Your task to perform on an android device: open sync settings in chrome Image 0: 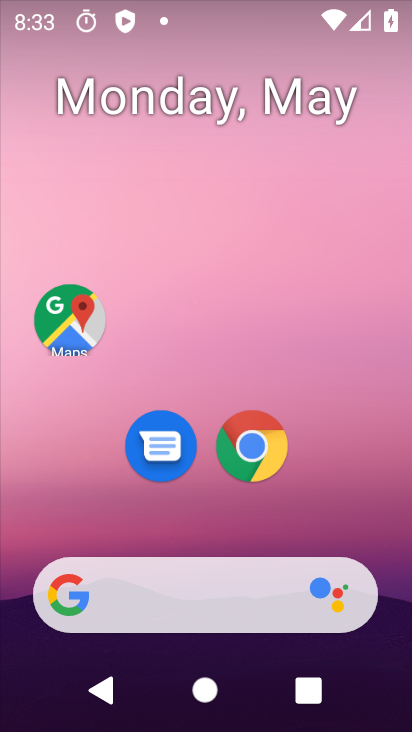
Step 0: click (378, 481)
Your task to perform on an android device: open sync settings in chrome Image 1: 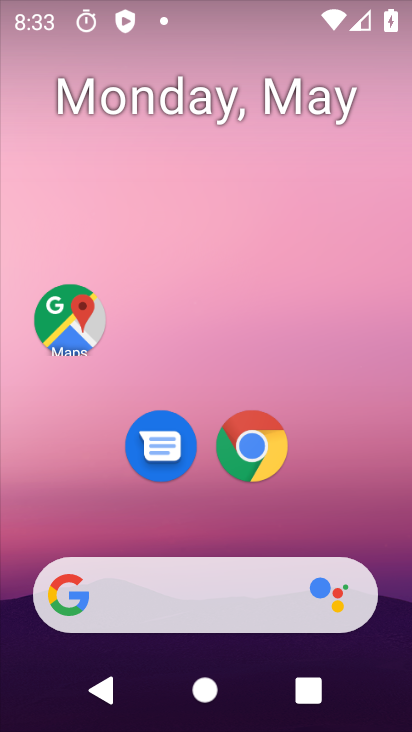
Step 1: click (252, 451)
Your task to perform on an android device: open sync settings in chrome Image 2: 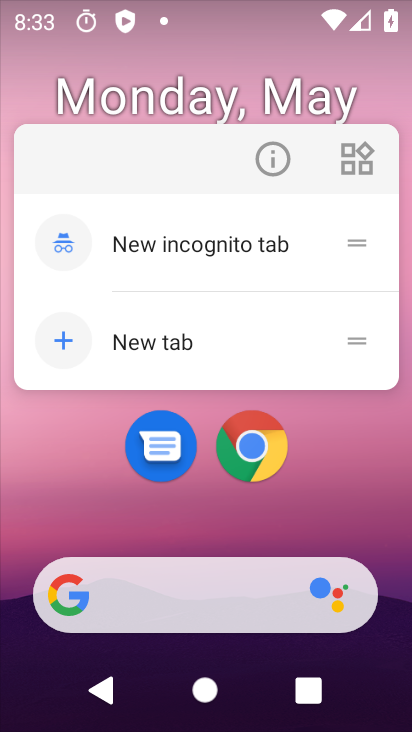
Step 2: click (260, 445)
Your task to perform on an android device: open sync settings in chrome Image 3: 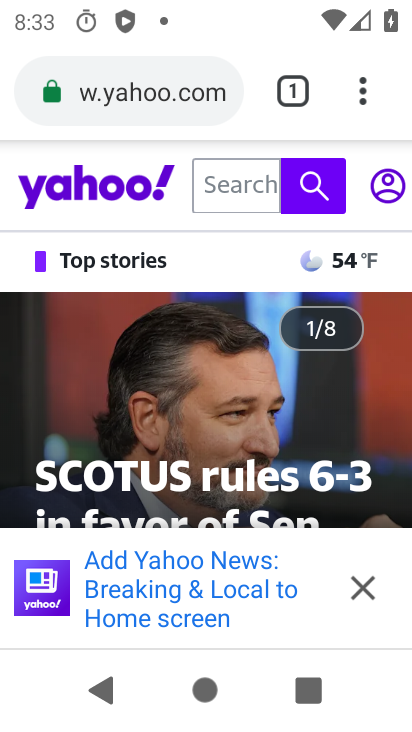
Step 3: click (369, 98)
Your task to perform on an android device: open sync settings in chrome Image 4: 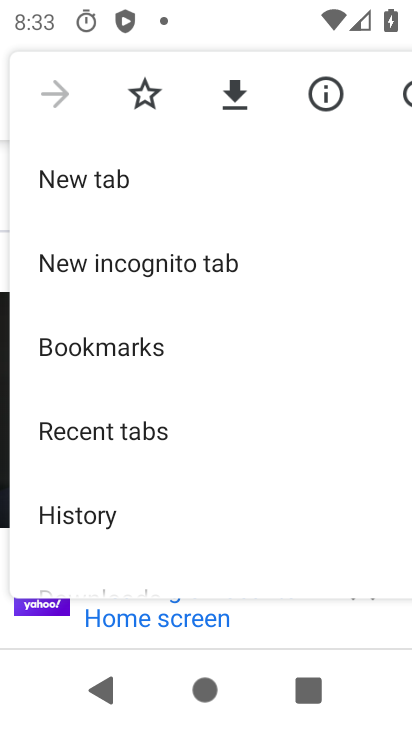
Step 4: drag from (216, 482) to (231, 71)
Your task to perform on an android device: open sync settings in chrome Image 5: 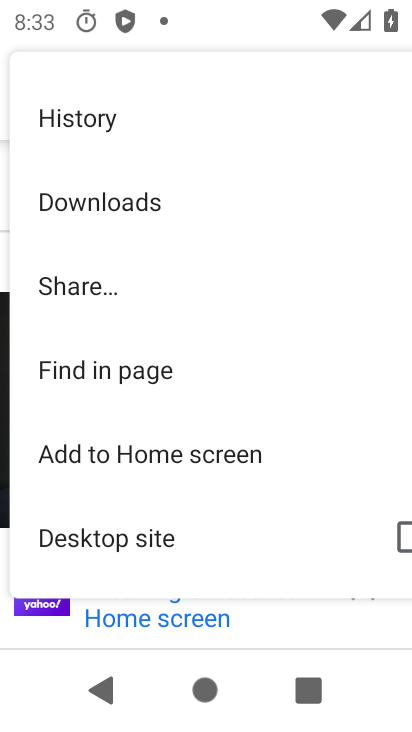
Step 5: drag from (122, 495) to (203, 109)
Your task to perform on an android device: open sync settings in chrome Image 6: 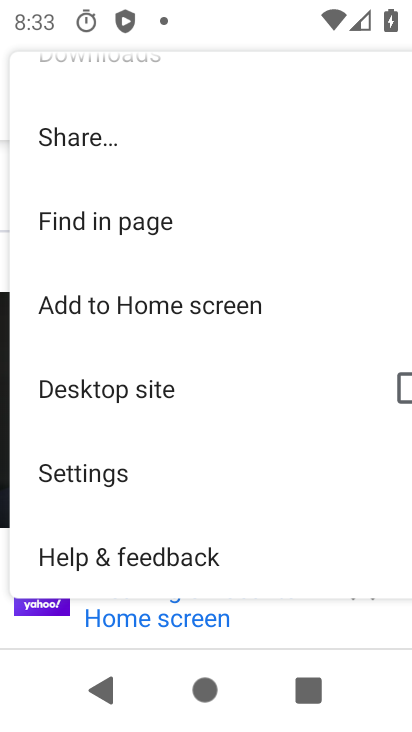
Step 6: click (77, 471)
Your task to perform on an android device: open sync settings in chrome Image 7: 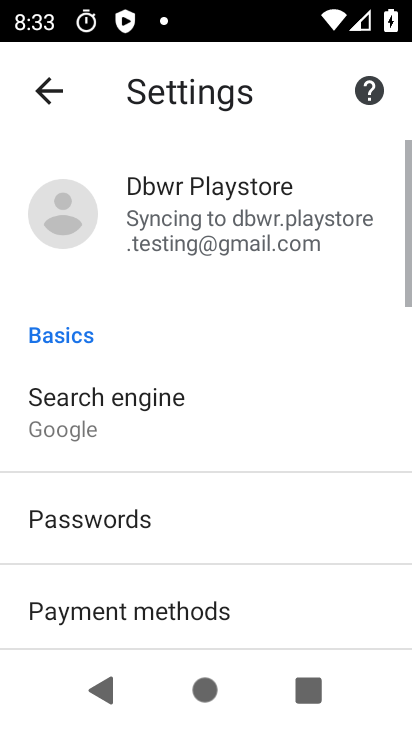
Step 7: click (158, 230)
Your task to perform on an android device: open sync settings in chrome Image 8: 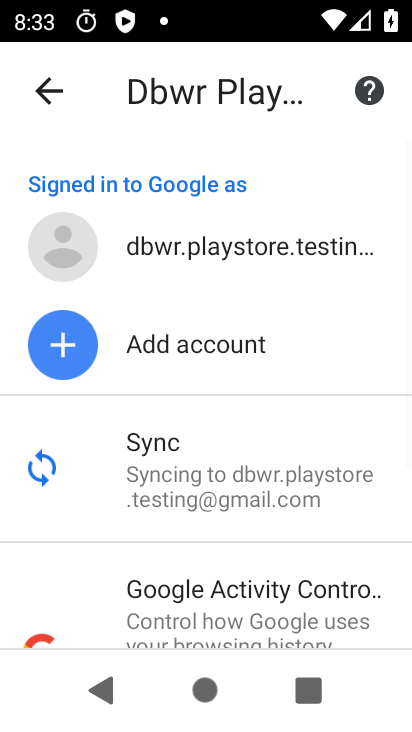
Step 8: click (153, 471)
Your task to perform on an android device: open sync settings in chrome Image 9: 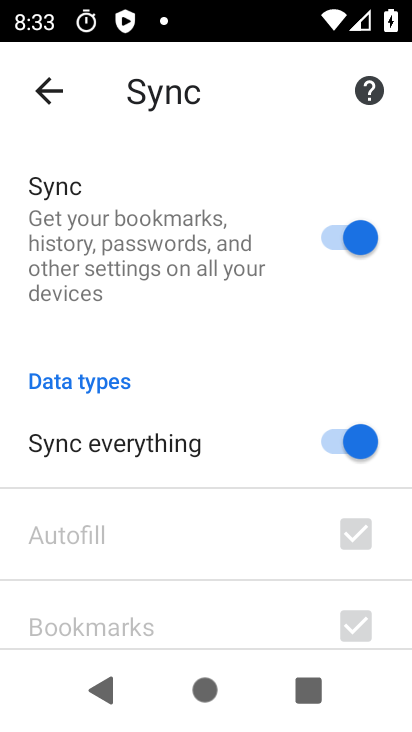
Step 9: task complete